Your task to perform on an android device: toggle location history Image 0: 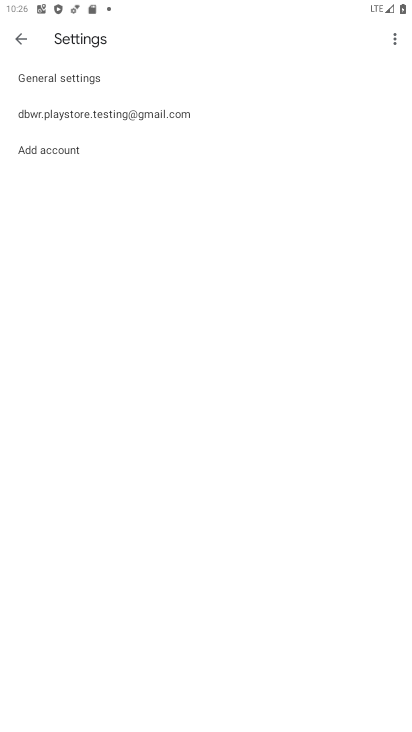
Step 0: press home button
Your task to perform on an android device: toggle location history Image 1: 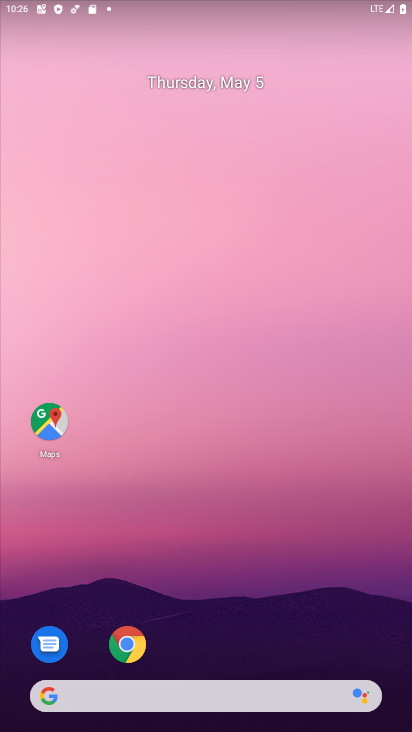
Step 1: drag from (187, 652) to (198, 0)
Your task to perform on an android device: toggle location history Image 2: 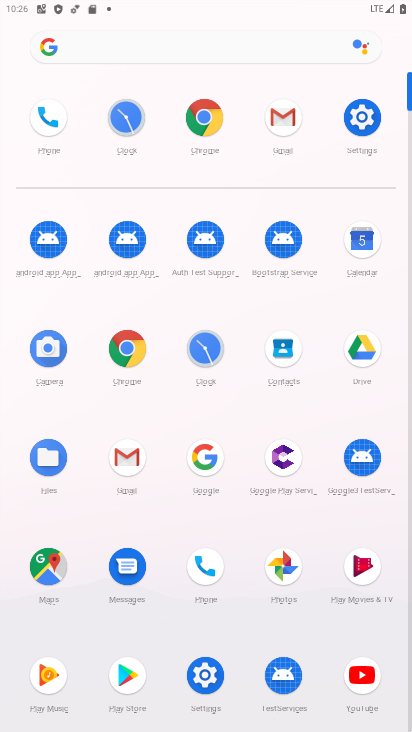
Step 2: click (367, 127)
Your task to perform on an android device: toggle location history Image 3: 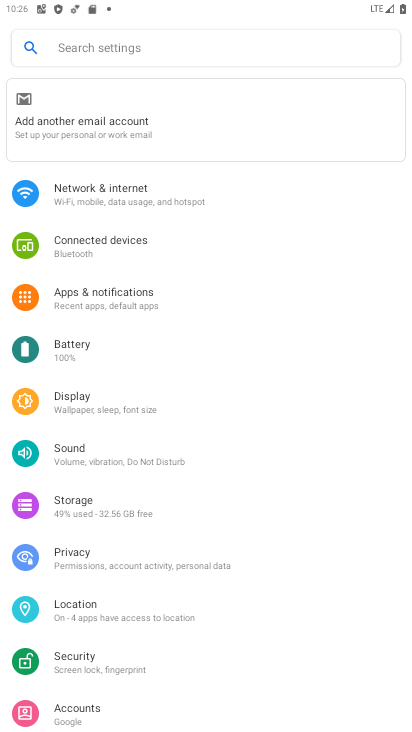
Step 3: click (61, 599)
Your task to perform on an android device: toggle location history Image 4: 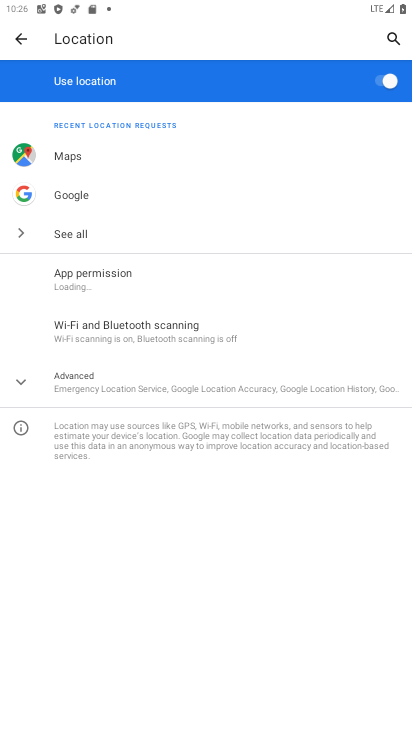
Step 4: click (129, 388)
Your task to perform on an android device: toggle location history Image 5: 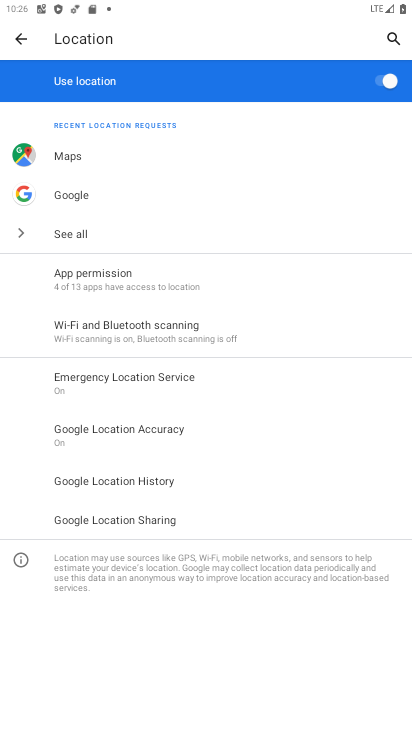
Step 5: click (112, 472)
Your task to perform on an android device: toggle location history Image 6: 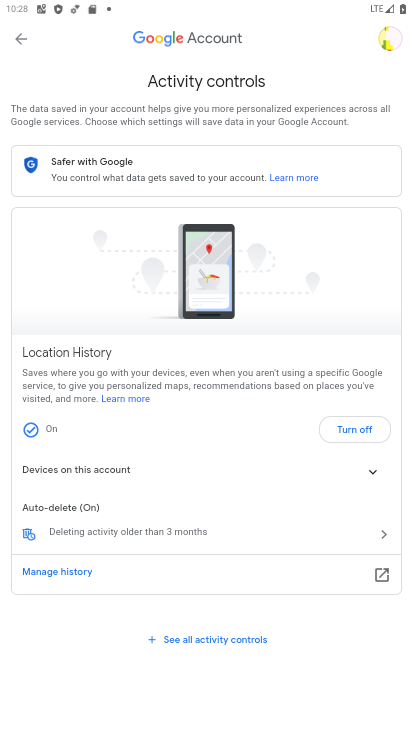
Step 6: task complete